Your task to perform on an android device: Is it going to rain this weekend? Image 0: 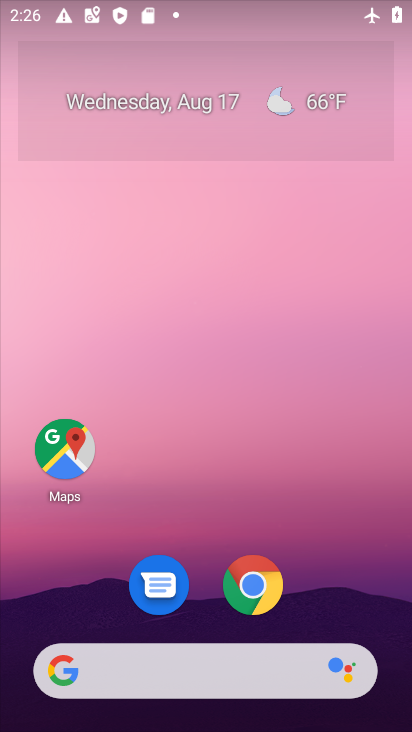
Step 0: click (309, 96)
Your task to perform on an android device: Is it going to rain this weekend? Image 1: 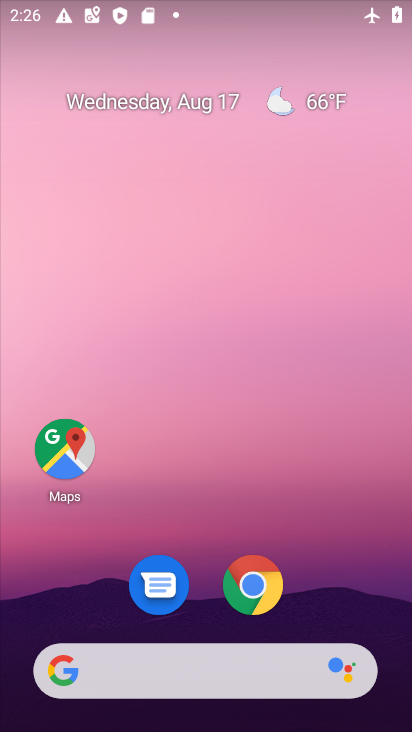
Step 1: click (323, 107)
Your task to perform on an android device: Is it going to rain this weekend? Image 2: 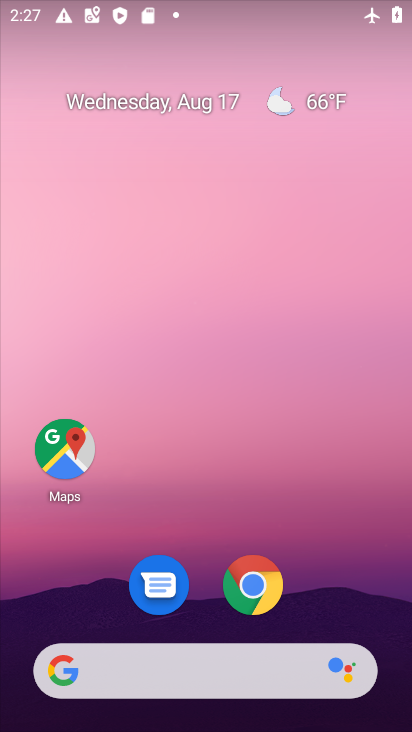
Step 2: click (195, 662)
Your task to perform on an android device: Is it going to rain this weekend? Image 3: 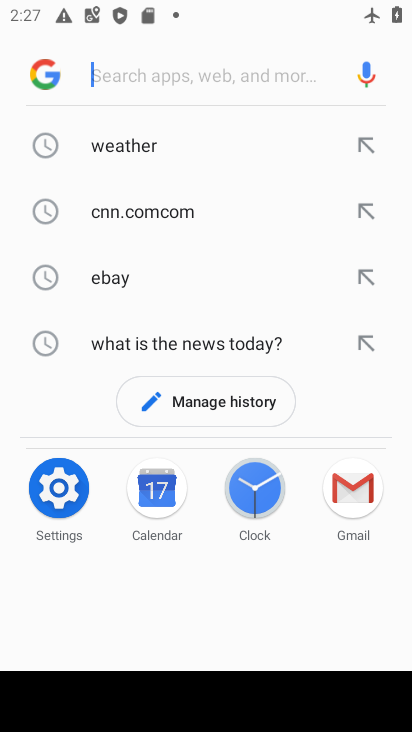
Step 3: click (226, 139)
Your task to perform on an android device: Is it going to rain this weekend? Image 4: 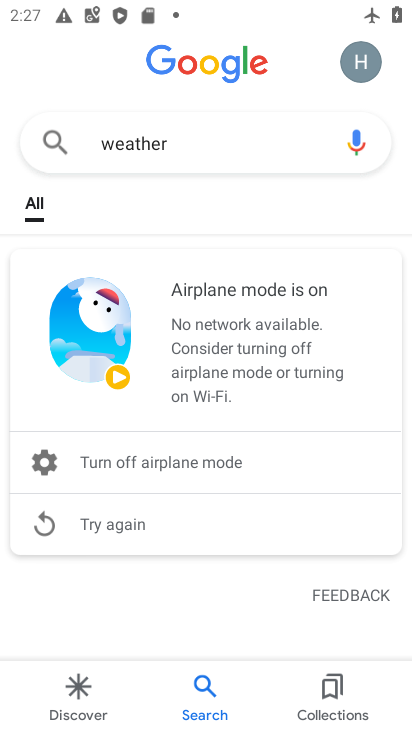
Step 4: task complete